Your task to perform on an android device: What is the news today? Image 0: 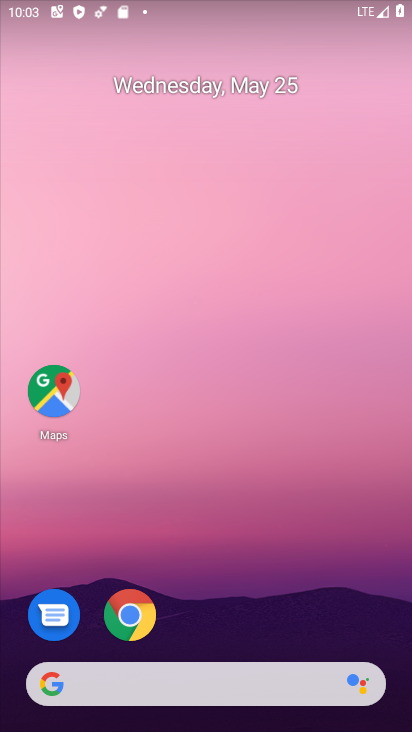
Step 0: click (227, 679)
Your task to perform on an android device: What is the news today? Image 1: 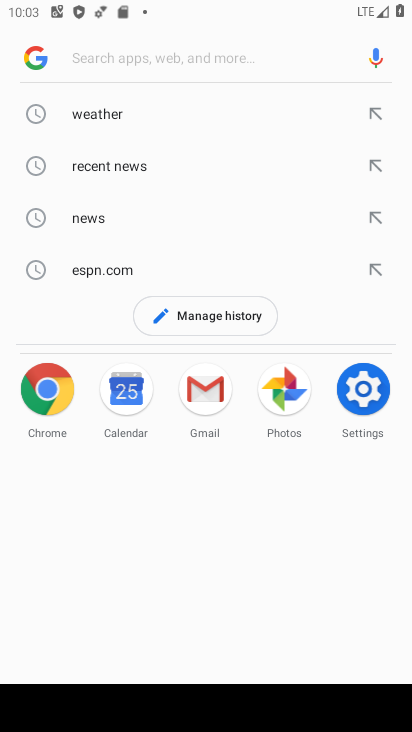
Step 1: click (70, 213)
Your task to perform on an android device: What is the news today? Image 2: 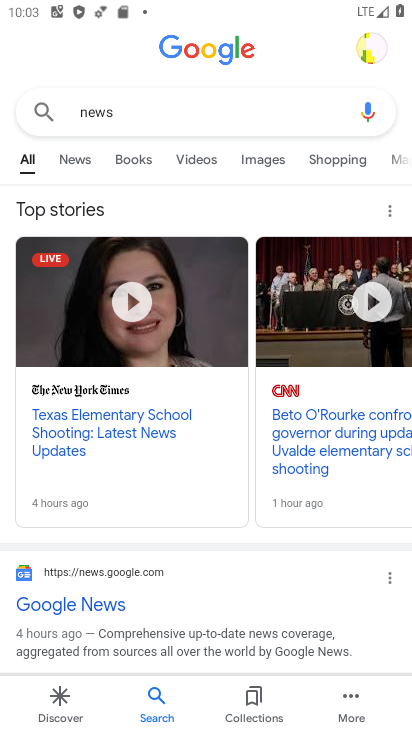
Step 2: task complete